Your task to perform on an android device: Play the last video I watched on Youtube Image 0: 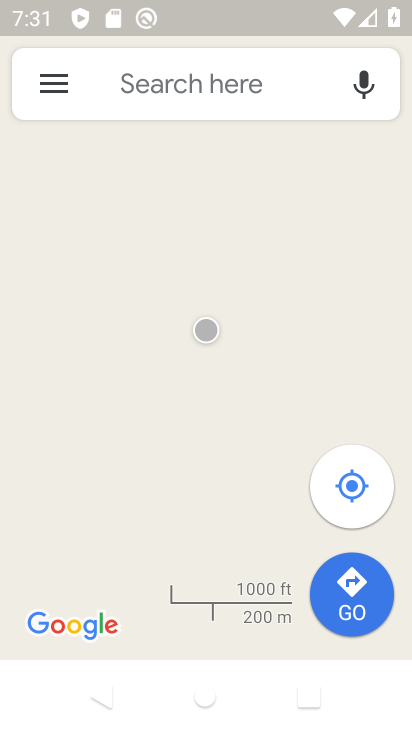
Step 0: press home button
Your task to perform on an android device: Play the last video I watched on Youtube Image 1: 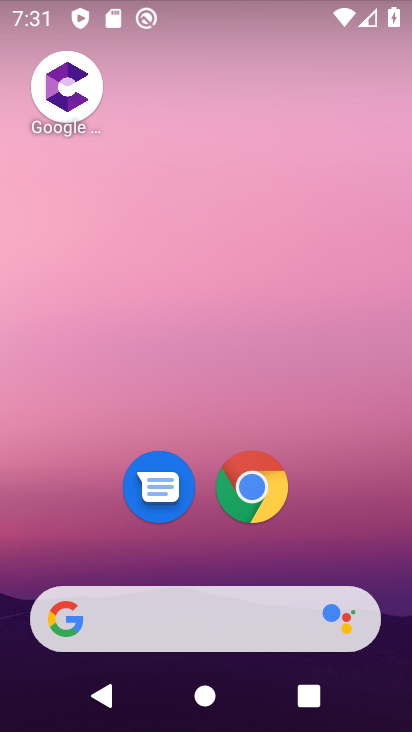
Step 1: drag from (390, 473) to (378, 123)
Your task to perform on an android device: Play the last video I watched on Youtube Image 2: 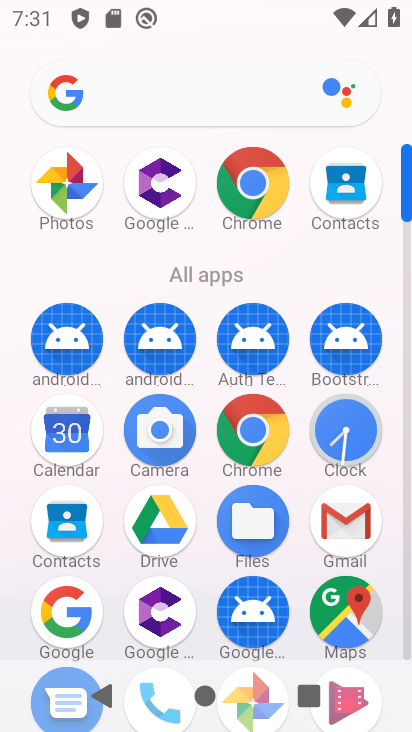
Step 2: drag from (388, 629) to (385, 336)
Your task to perform on an android device: Play the last video I watched on Youtube Image 3: 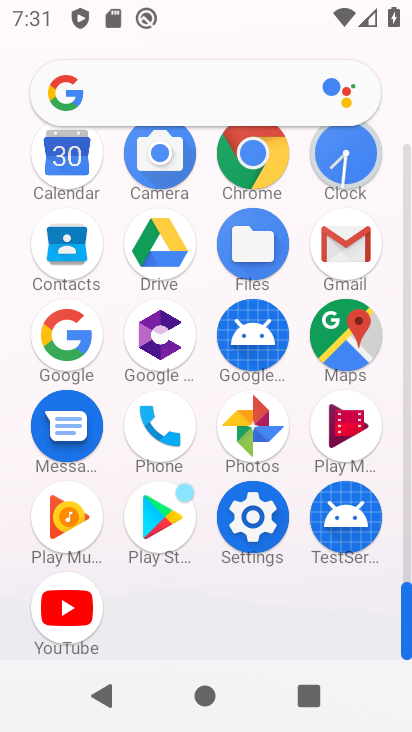
Step 3: click (70, 616)
Your task to perform on an android device: Play the last video I watched on Youtube Image 4: 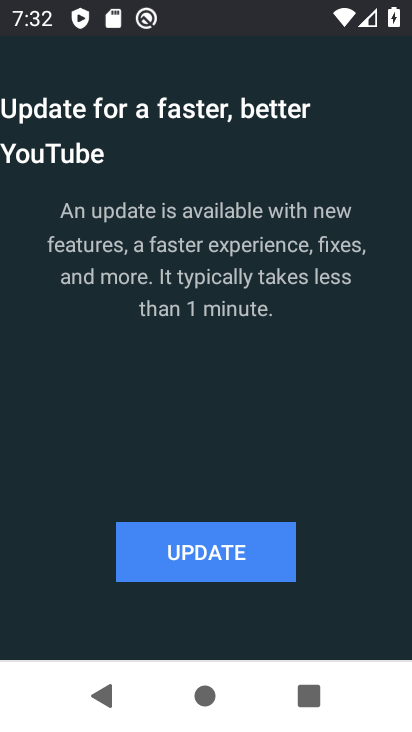
Step 4: click (220, 558)
Your task to perform on an android device: Play the last video I watched on Youtube Image 5: 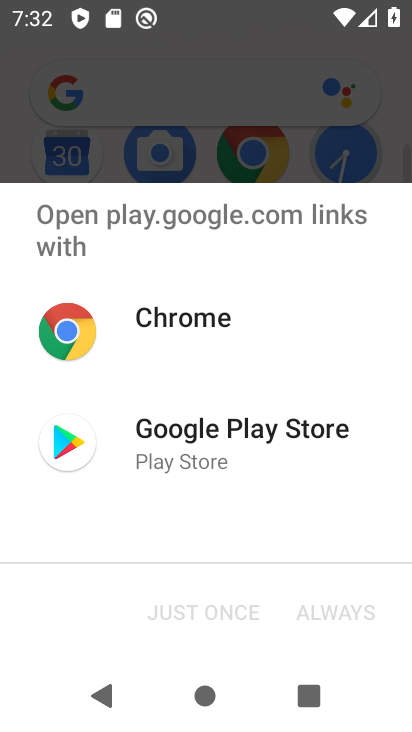
Step 5: click (195, 438)
Your task to perform on an android device: Play the last video I watched on Youtube Image 6: 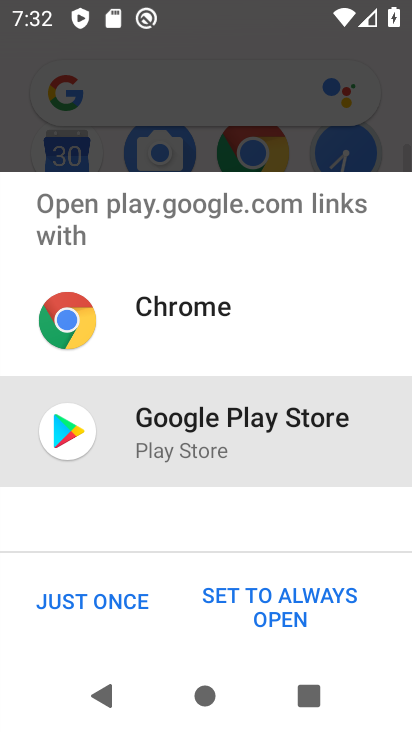
Step 6: click (114, 588)
Your task to perform on an android device: Play the last video I watched on Youtube Image 7: 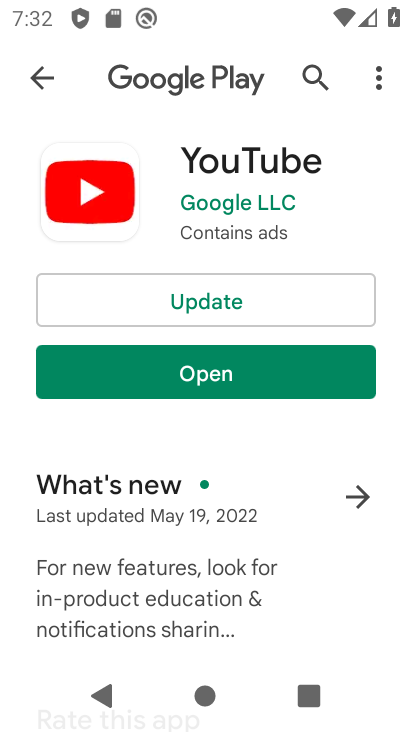
Step 7: click (197, 299)
Your task to perform on an android device: Play the last video I watched on Youtube Image 8: 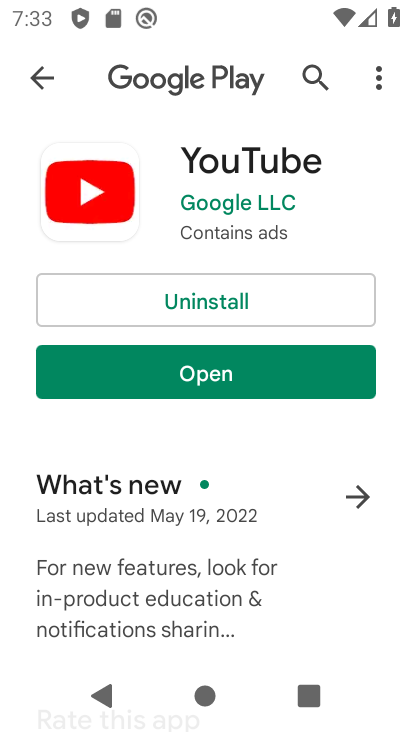
Step 8: click (315, 357)
Your task to perform on an android device: Play the last video I watched on Youtube Image 9: 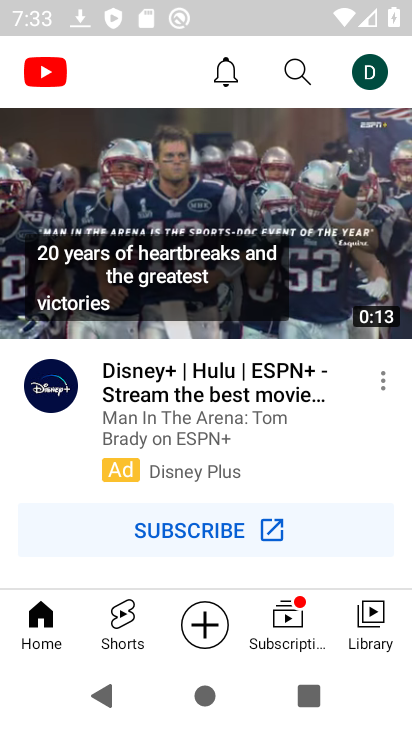
Step 9: click (366, 626)
Your task to perform on an android device: Play the last video I watched on Youtube Image 10: 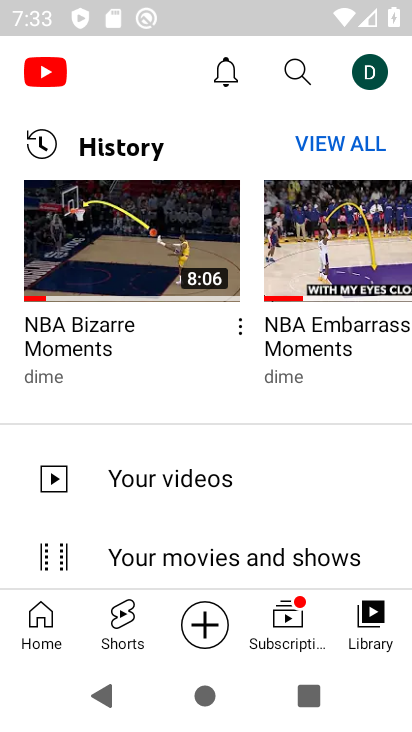
Step 10: click (115, 228)
Your task to perform on an android device: Play the last video I watched on Youtube Image 11: 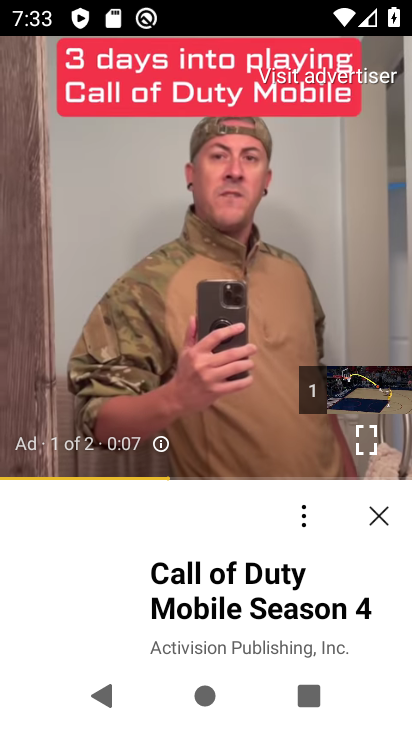
Step 11: task complete